Your task to perform on an android device: Add bose soundsport free to the cart on target.com Image 0: 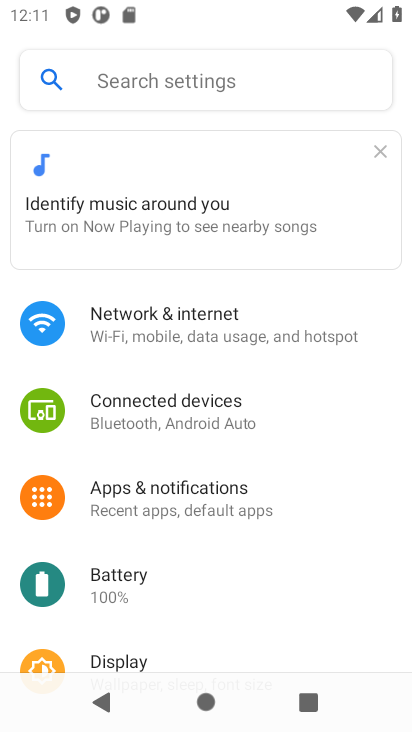
Step 0: press home button
Your task to perform on an android device: Add bose soundsport free to the cart on target.com Image 1: 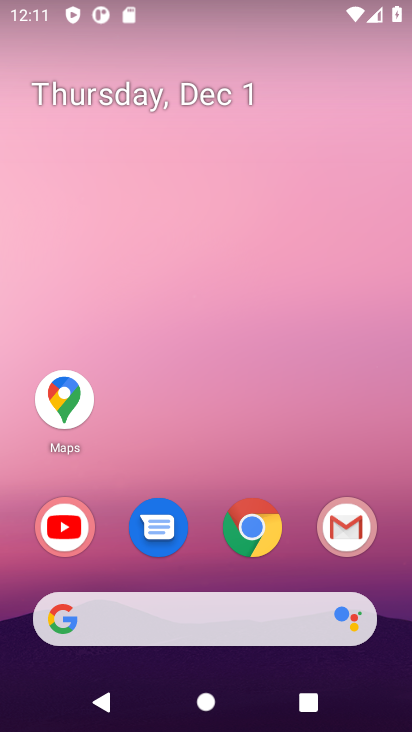
Step 1: click (265, 529)
Your task to perform on an android device: Add bose soundsport free to the cart on target.com Image 2: 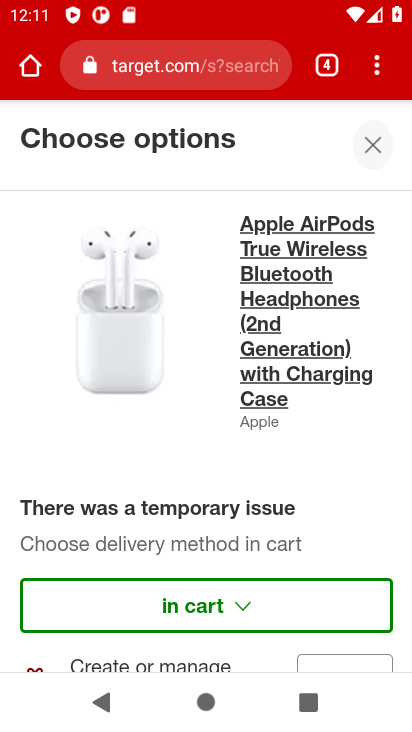
Step 2: click (374, 140)
Your task to perform on an android device: Add bose soundsport free to the cart on target.com Image 3: 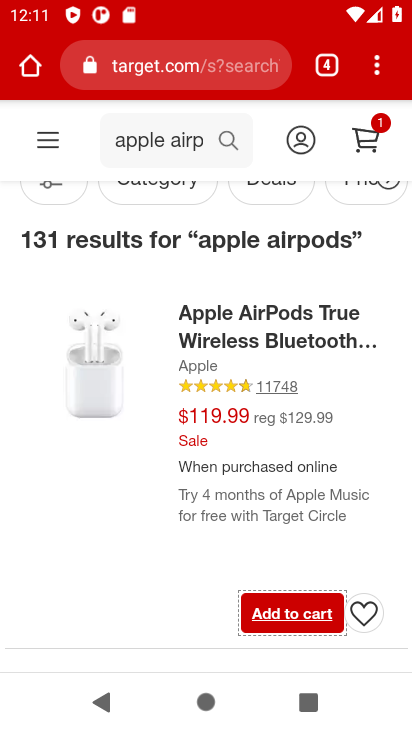
Step 3: click (233, 139)
Your task to perform on an android device: Add bose soundsport free to the cart on target.com Image 4: 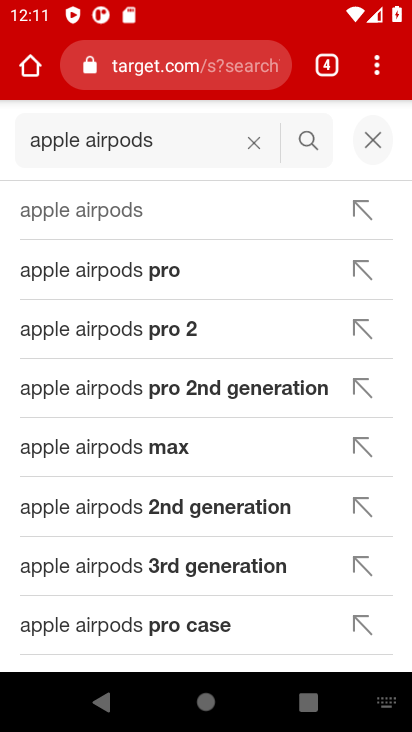
Step 4: click (249, 141)
Your task to perform on an android device: Add bose soundsport free to the cart on target.com Image 5: 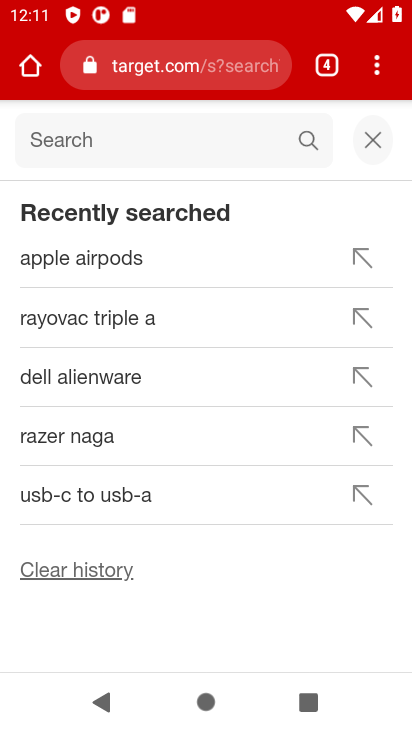
Step 5: click (57, 149)
Your task to perform on an android device: Add bose soundsport free to the cart on target.com Image 6: 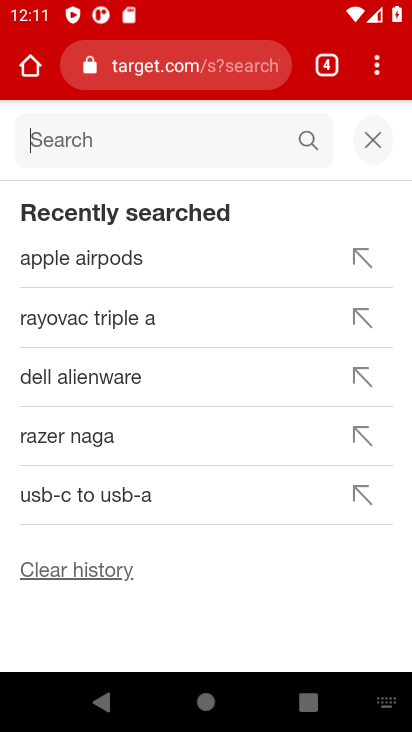
Step 6: type "bose soundsport free"
Your task to perform on an android device: Add bose soundsport free to the cart on target.com Image 7: 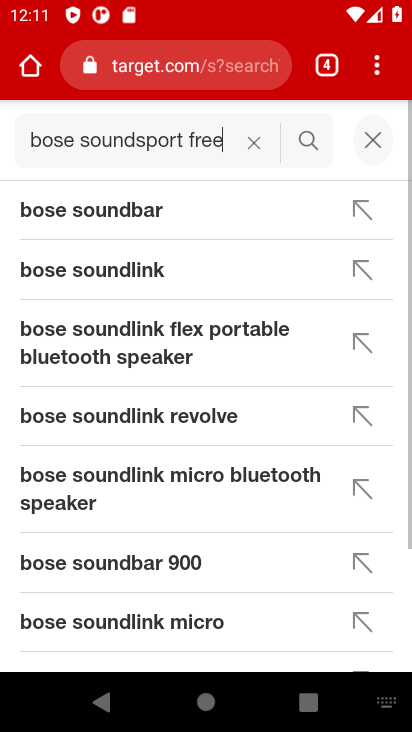
Step 7: click (309, 141)
Your task to perform on an android device: Add bose soundsport free to the cart on target.com Image 8: 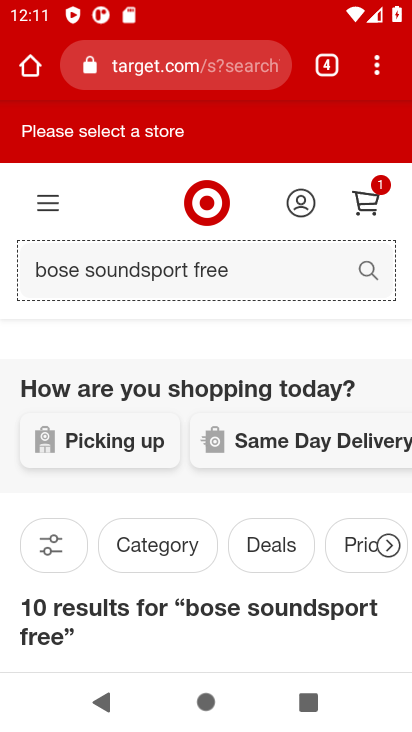
Step 8: task complete